Your task to perform on an android device: Open internet settings Image 0: 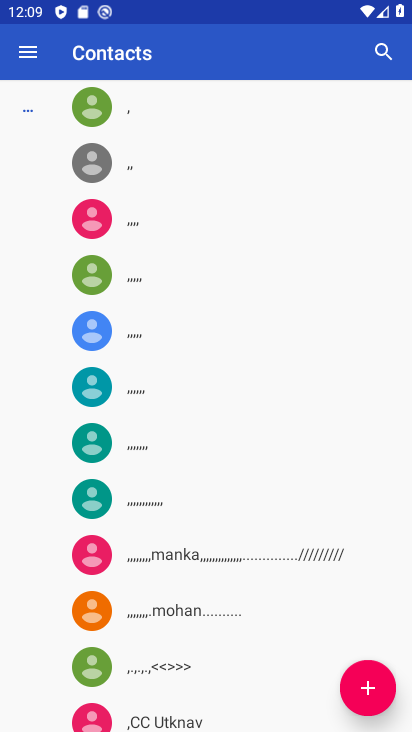
Step 0: press home button
Your task to perform on an android device: Open internet settings Image 1: 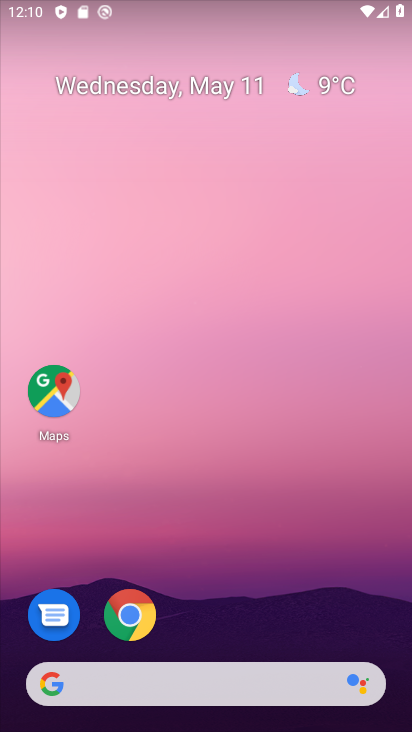
Step 1: drag from (291, 585) to (147, 272)
Your task to perform on an android device: Open internet settings Image 2: 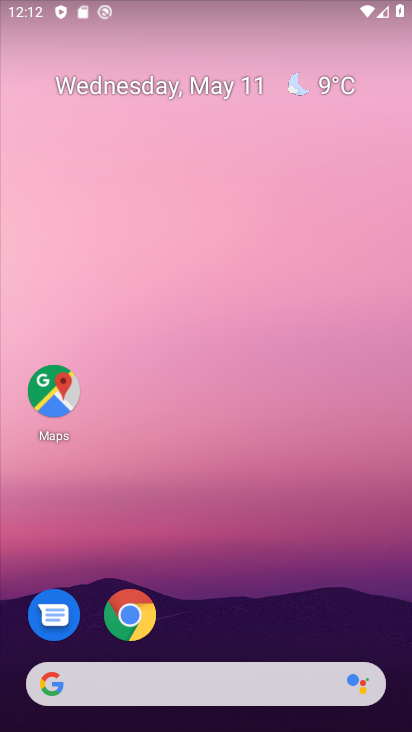
Step 2: drag from (295, 615) to (301, 59)
Your task to perform on an android device: Open internet settings Image 3: 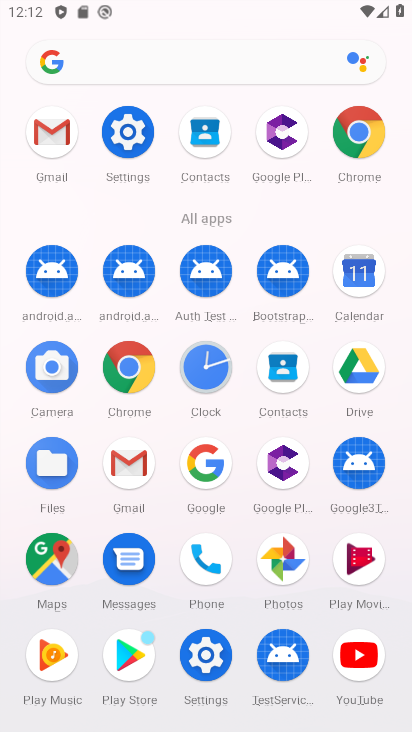
Step 3: click (131, 146)
Your task to perform on an android device: Open internet settings Image 4: 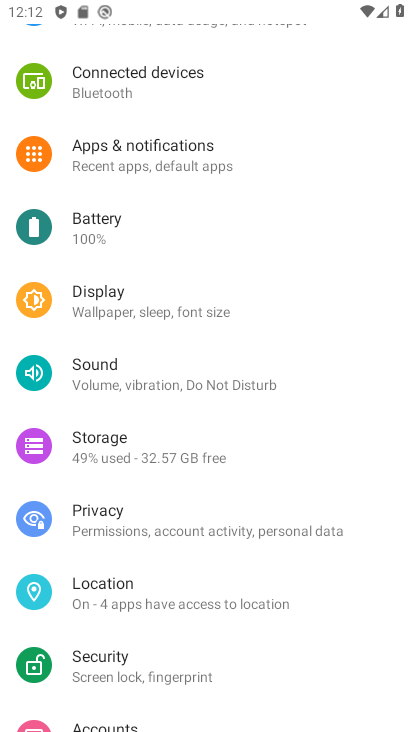
Step 4: drag from (244, 142) to (209, 527)
Your task to perform on an android device: Open internet settings Image 5: 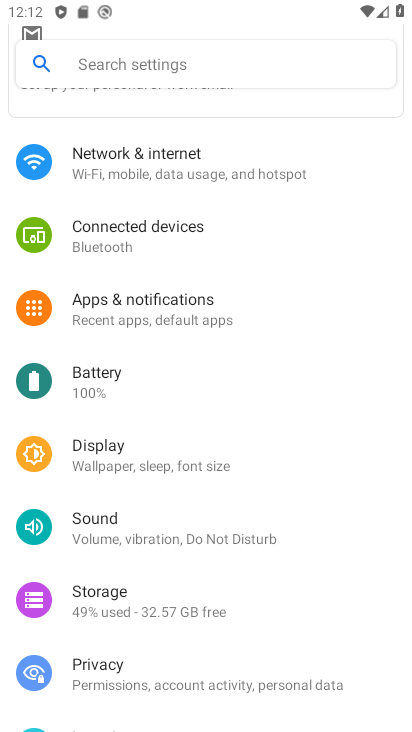
Step 5: click (127, 128)
Your task to perform on an android device: Open internet settings Image 6: 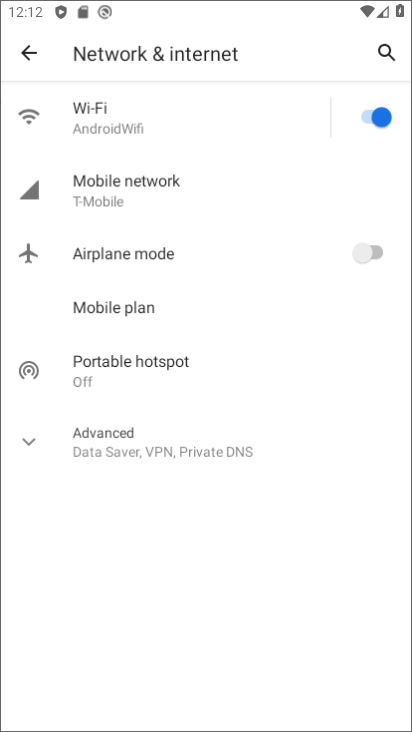
Step 6: task complete